Your task to perform on an android device: Open wifi settings Image 0: 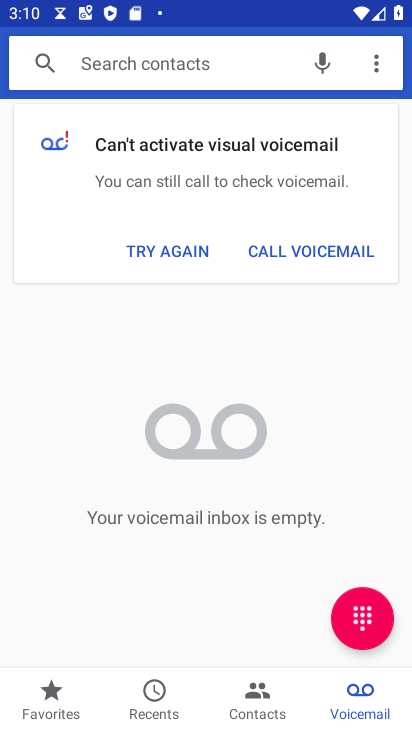
Step 0: press home button
Your task to perform on an android device: Open wifi settings Image 1: 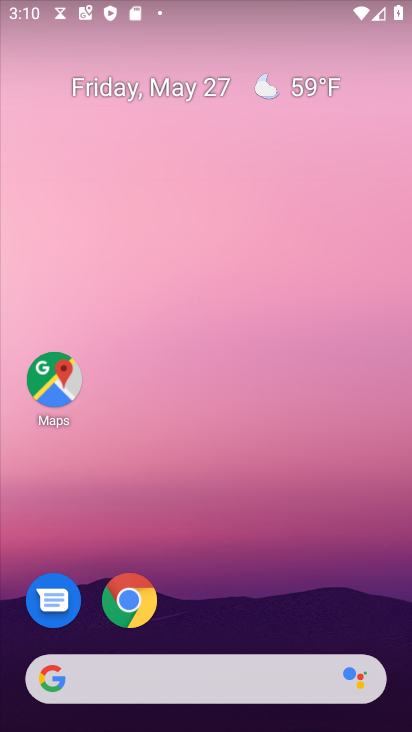
Step 1: drag from (260, 589) to (250, 141)
Your task to perform on an android device: Open wifi settings Image 2: 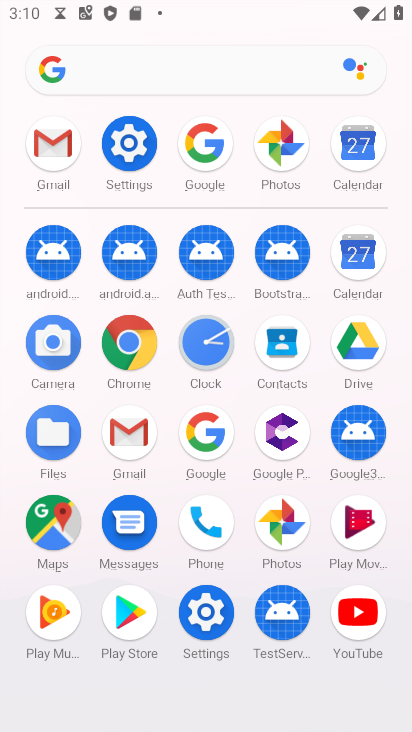
Step 2: click (130, 143)
Your task to perform on an android device: Open wifi settings Image 3: 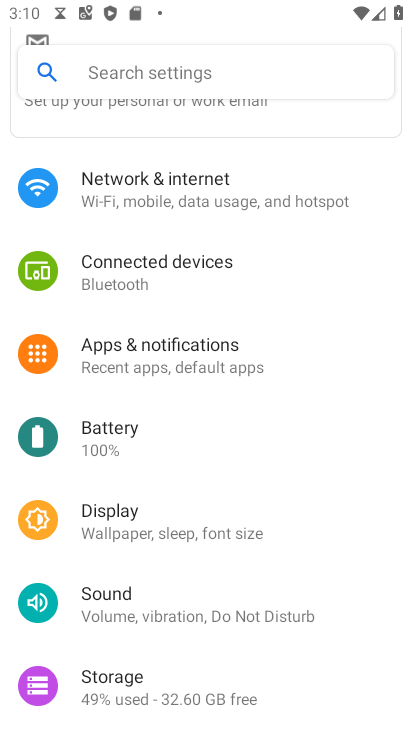
Step 3: click (162, 197)
Your task to perform on an android device: Open wifi settings Image 4: 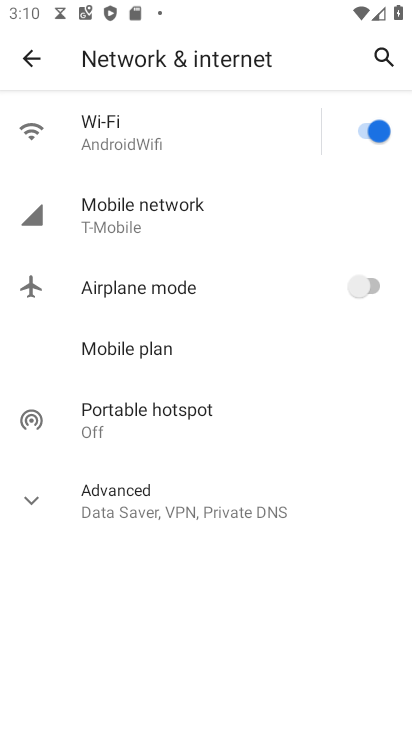
Step 4: click (141, 136)
Your task to perform on an android device: Open wifi settings Image 5: 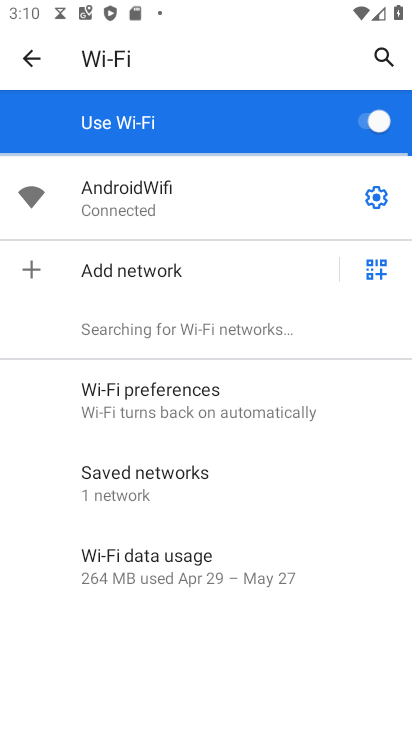
Step 5: click (373, 198)
Your task to perform on an android device: Open wifi settings Image 6: 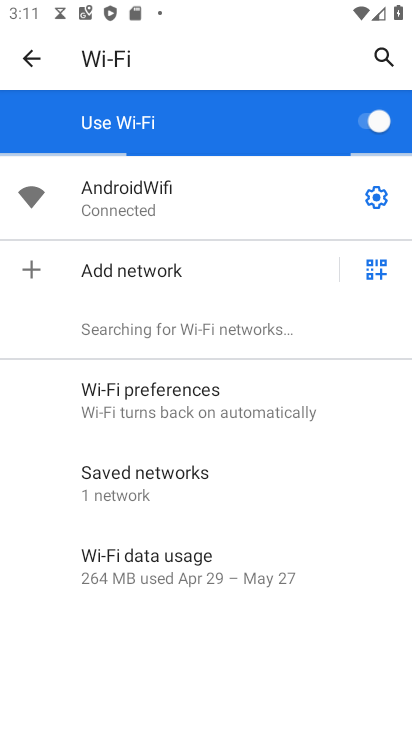
Step 6: click (378, 198)
Your task to perform on an android device: Open wifi settings Image 7: 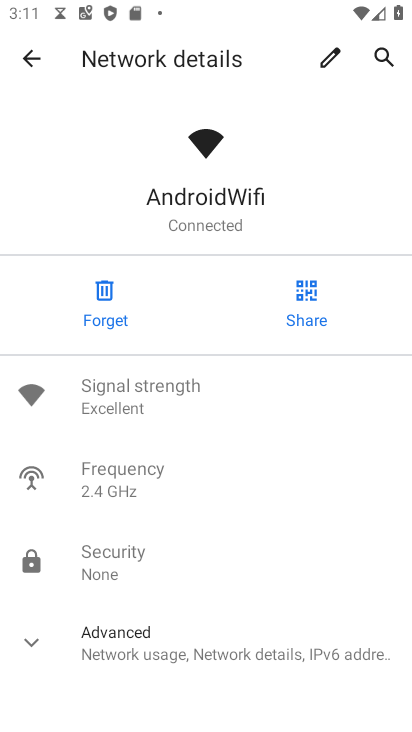
Step 7: task complete